Your task to perform on an android device: toggle translation in the chrome app Image 0: 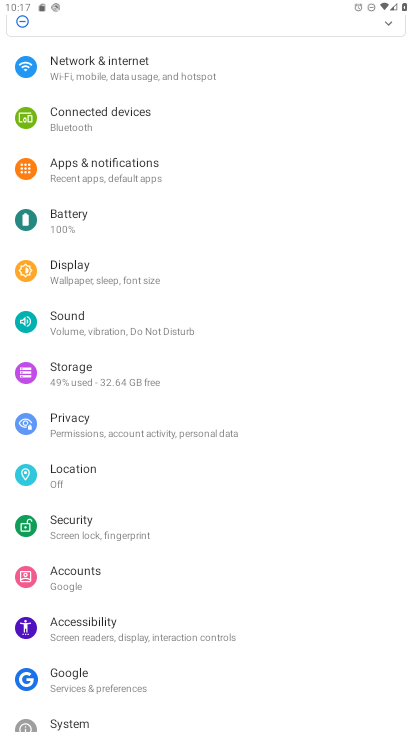
Step 0: press home button
Your task to perform on an android device: toggle translation in the chrome app Image 1: 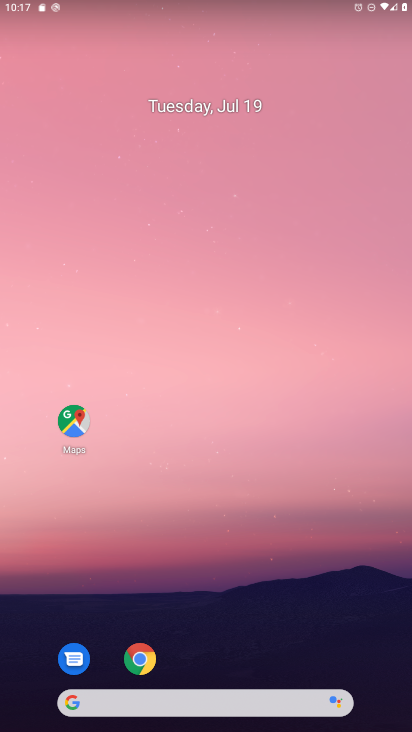
Step 1: click (237, 312)
Your task to perform on an android device: toggle translation in the chrome app Image 2: 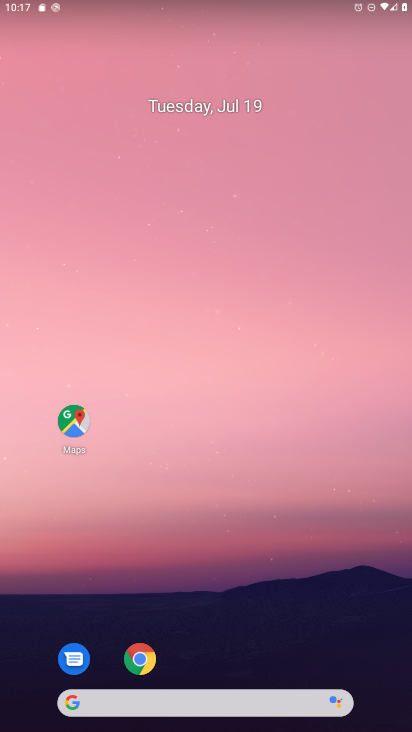
Step 2: drag from (221, 287) to (223, 197)
Your task to perform on an android device: toggle translation in the chrome app Image 3: 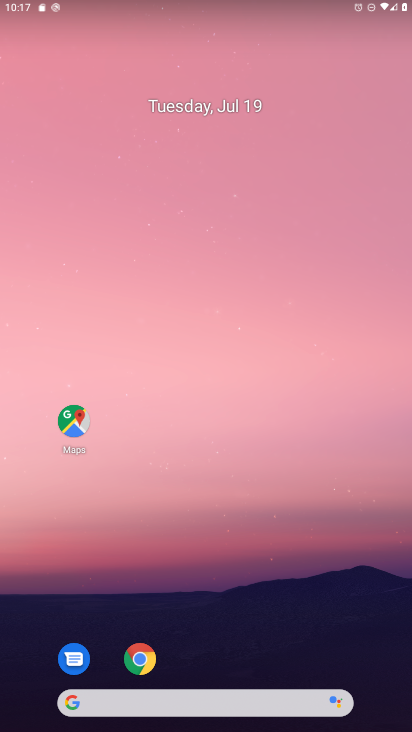
Step 3: drag from (203, 627) to (235, 240)
Your task to perform on an android device: toggle translation in the chrome app Image 4: 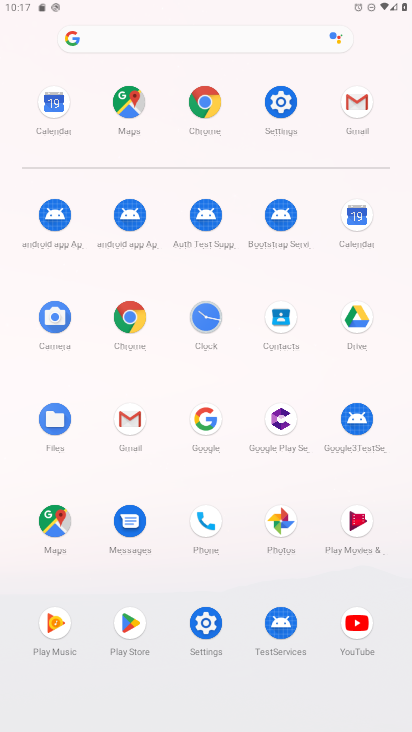
Step 4: click (130, 306)
Your task to perform on an android device: toggle translation in the chrome app Image 5: 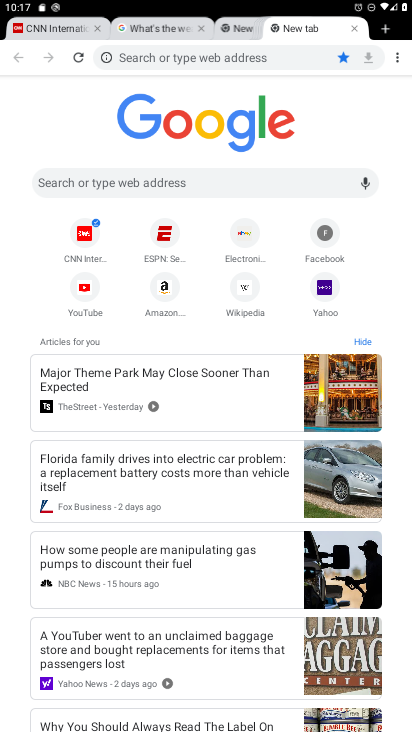
Step 5: click (396, 60)
Your task to perform on an android device: toggle translation in the chrome app Image 6: 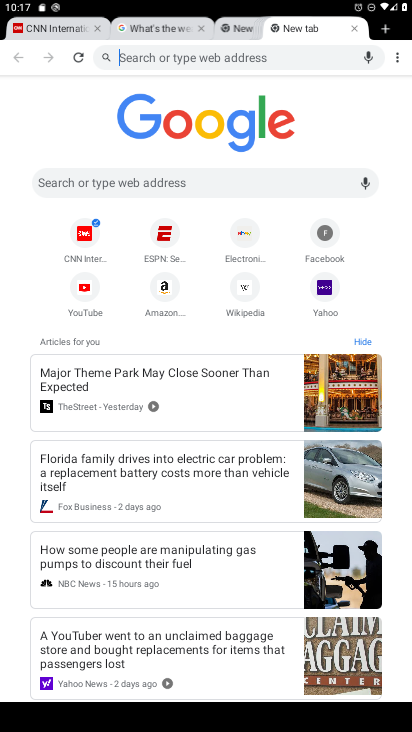
Step 6: click (399, 54)
Your task to perform on an android device: toggle translation in the chrome app Image 7: 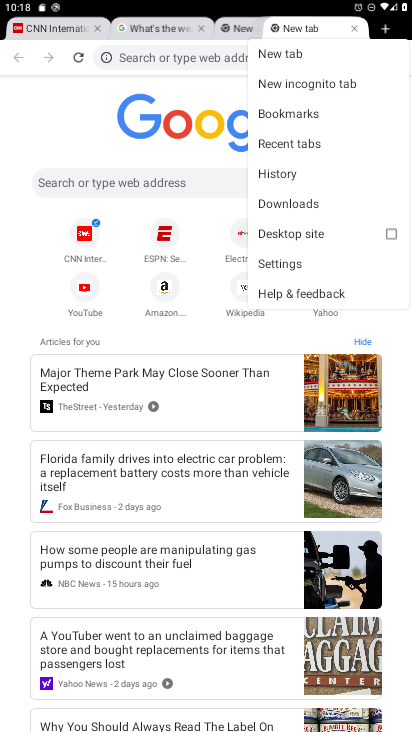
Step 7: click (274, 258)
Your task to perform on an android device: toggle translation in the chrome app Image 8: 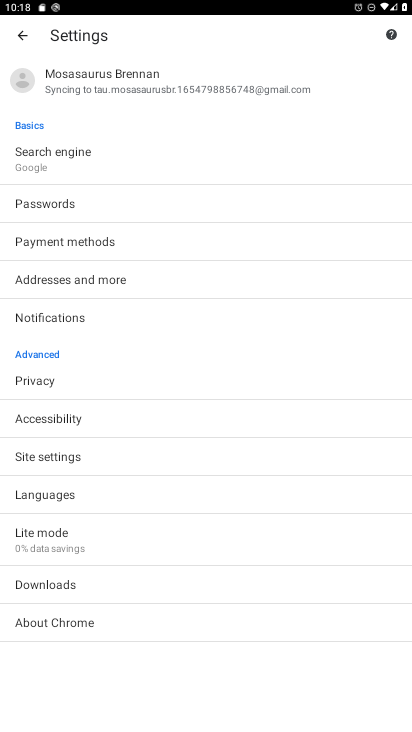
Step 8: click (128, 489)
Your task to perform on an android device: toggle translation in the chrome app Image 9: 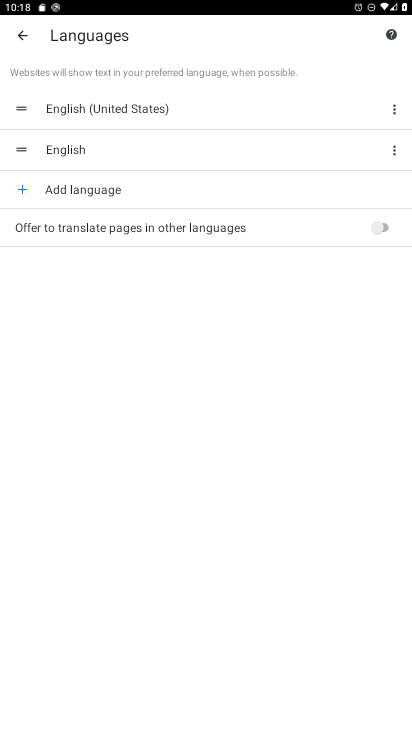
Step 9: click (381, 229)
Your task to perform on an android device: toggle translation in the chrome app Image 10: 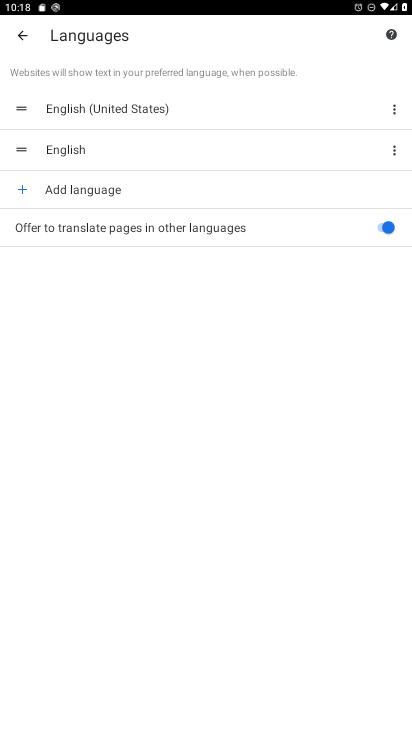
Step 10: task complete